Your task to perform on an android device: toggle airplane mode Image 0: 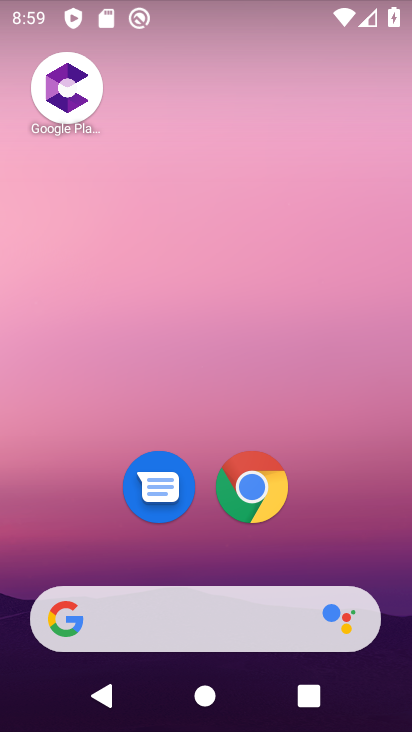
Step 0: drag from (287, 578) to (297, 60)
Your task to perform on an android device: toggle airplane mode Image 1: 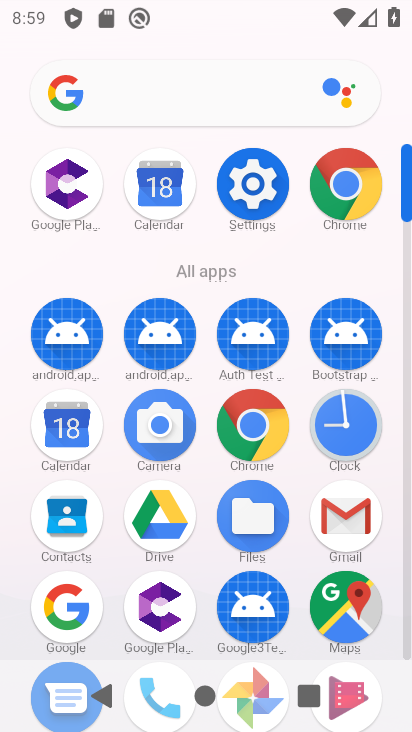
Step 1: click (268, 209)
Your task to perform on an android device: toggle airplane mode Image 2: 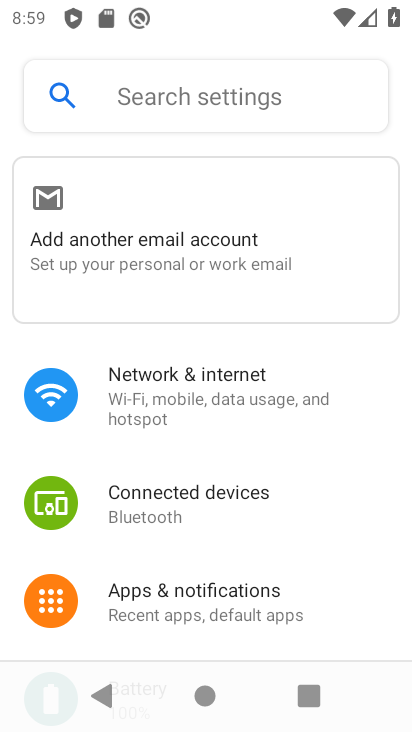
Step 2: click (330, 391)
Your task to perform on an android device: toggle airplane mode Image 3: 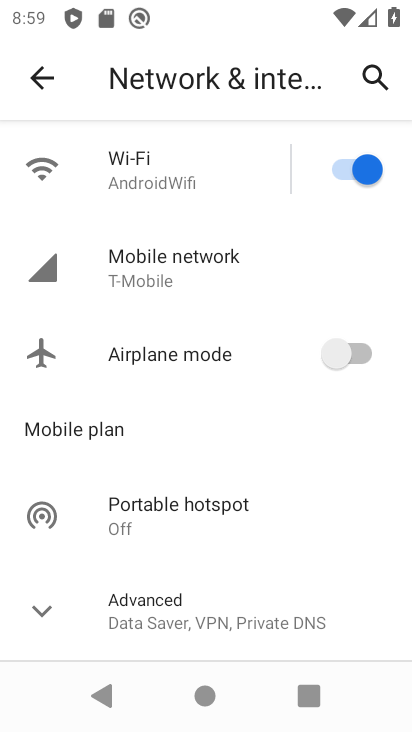
Step 3: click (332, 364)
Your task to perform on an android device: toggle airplane mode Image 4: 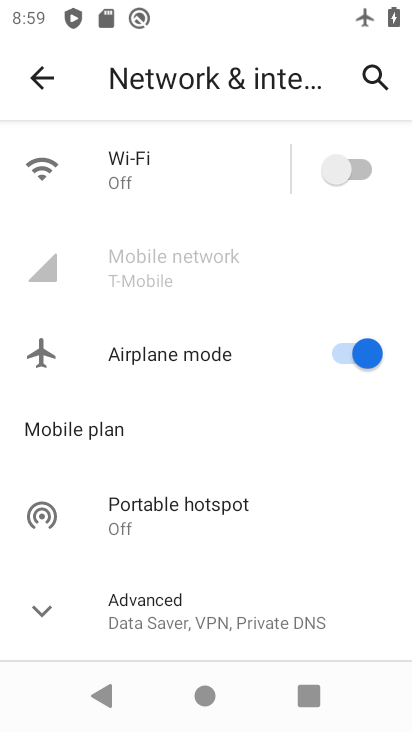
Step 4: task complete